Your task to perform on an android device: turn off location history Image 0: 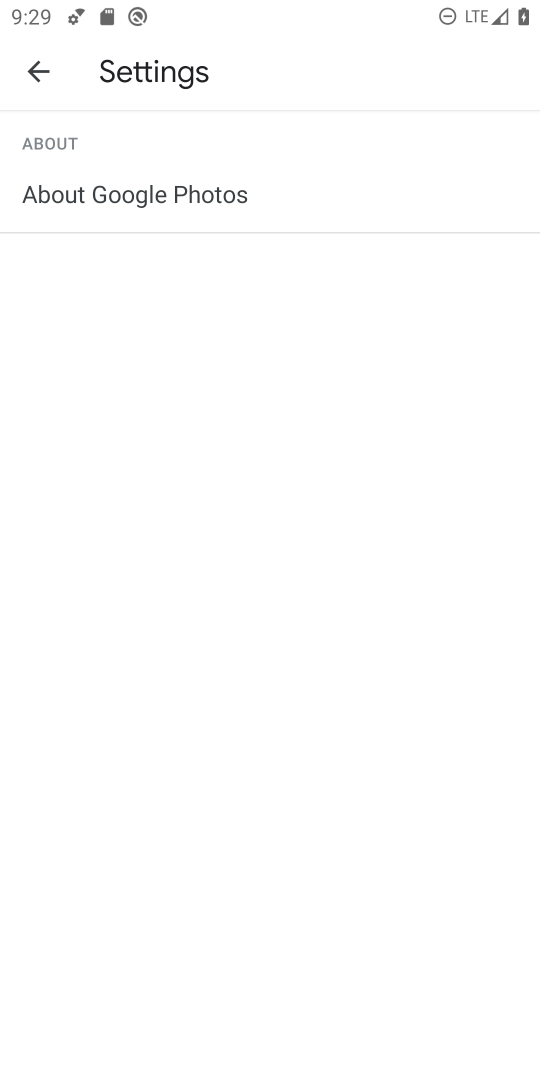
Step 0: press home button
Your task to perform on an android device: turn off location history Image 1: 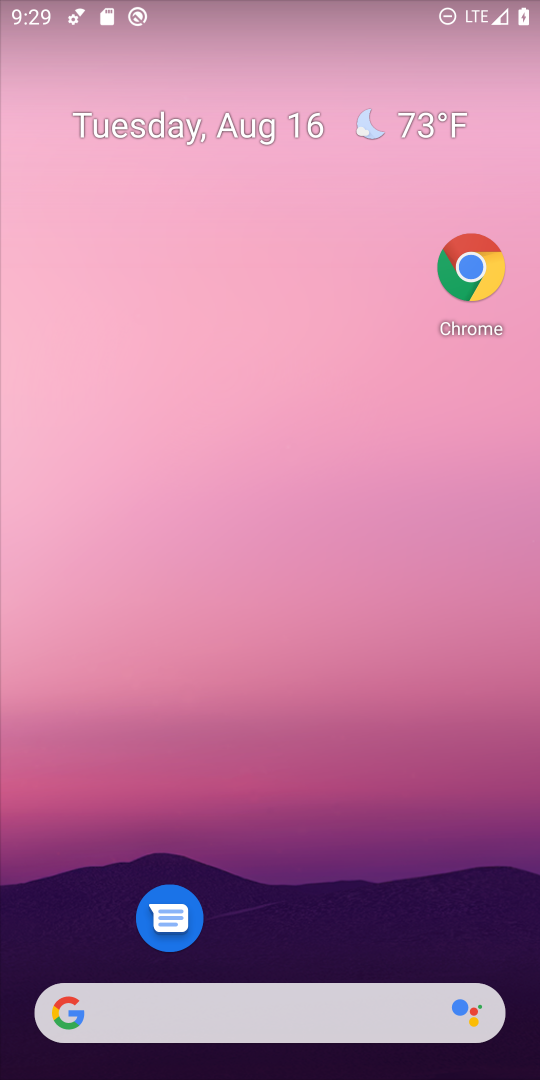
Step 1: drag from (328, 952) to (299, 347)
Your task to perform on an android device: turn off location history Image 2: 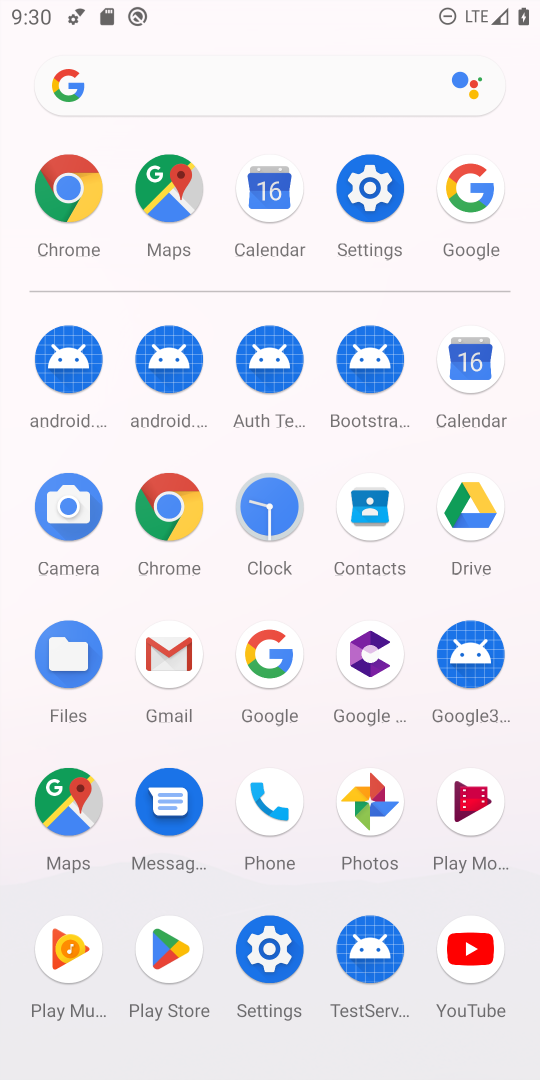
Step 2: click (374, 209)
Your task to perform on an android device: turn off location history Image 3: 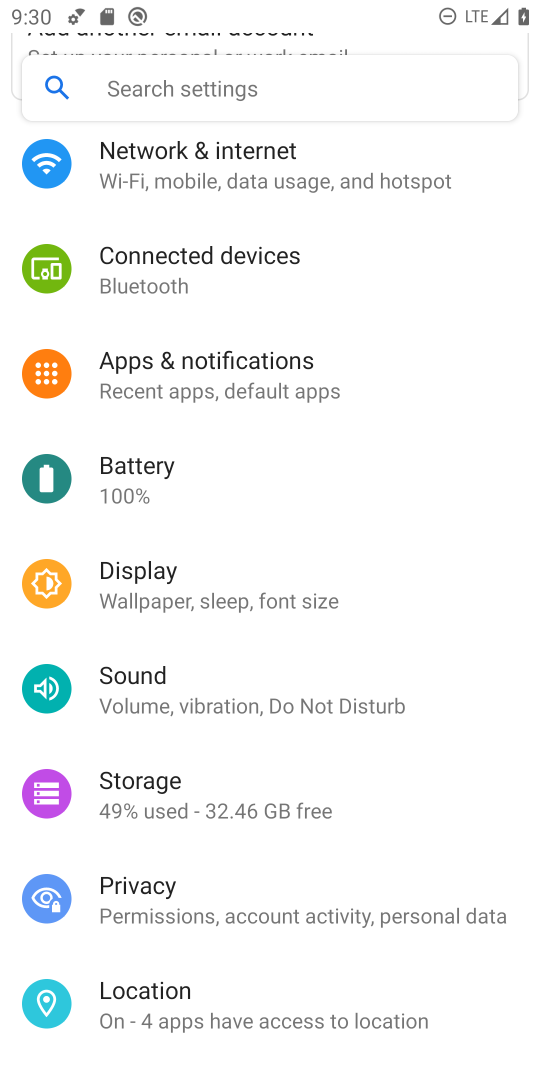
Step 3: click (191, 991)
Your task to perform on an android device: turn off location history Image 4: 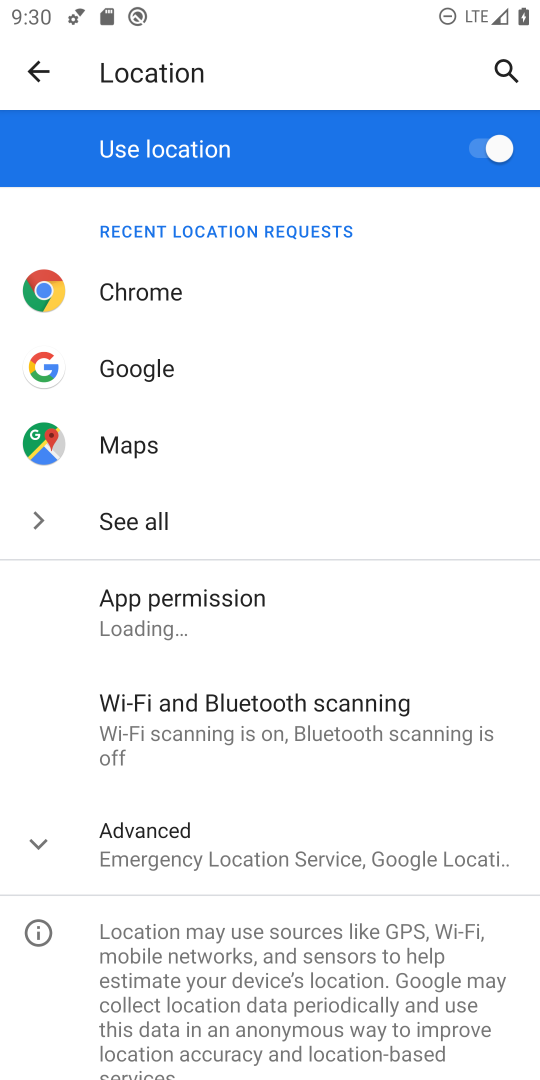
Step 4: click (202, 843)
Your task to perform on an android device: turn off location history Image 5: 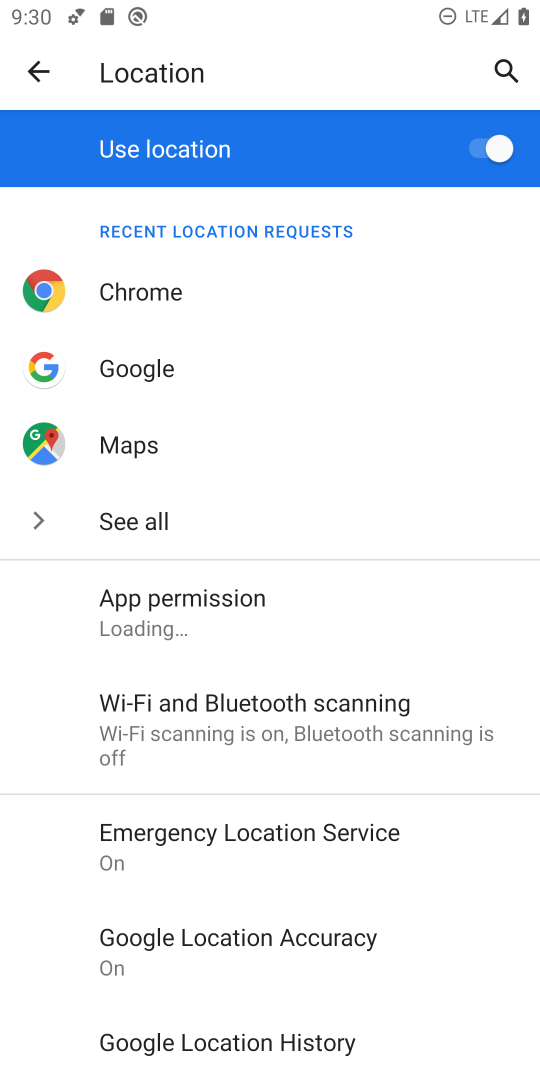
Step 5: drag from (251, 998) to (228, 481)
Your task to perform on an android device: turn off location history Image 6: 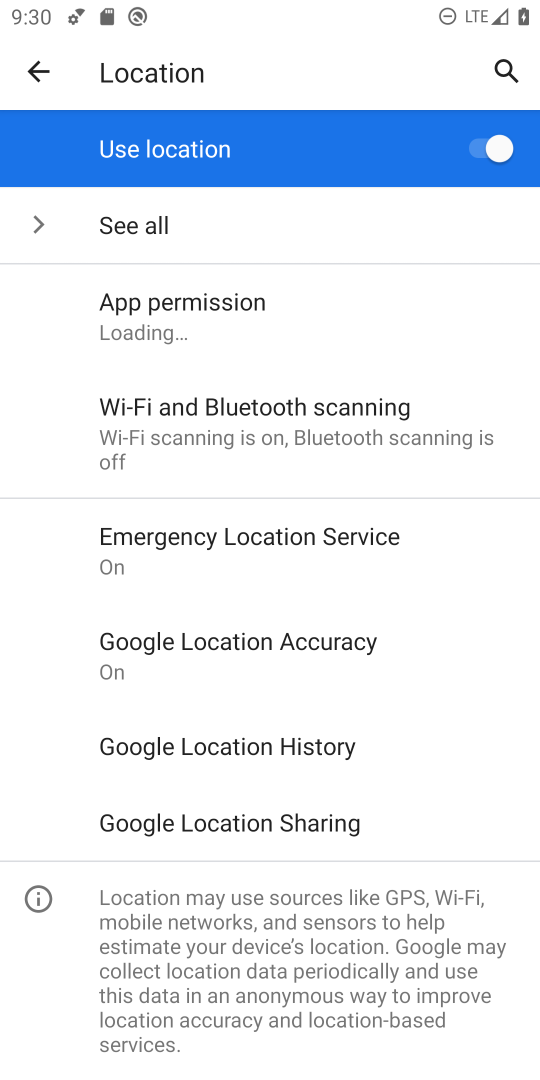
Step 6: click (229, 747)
Your task to perform on an android device: turn off location history Image 7: 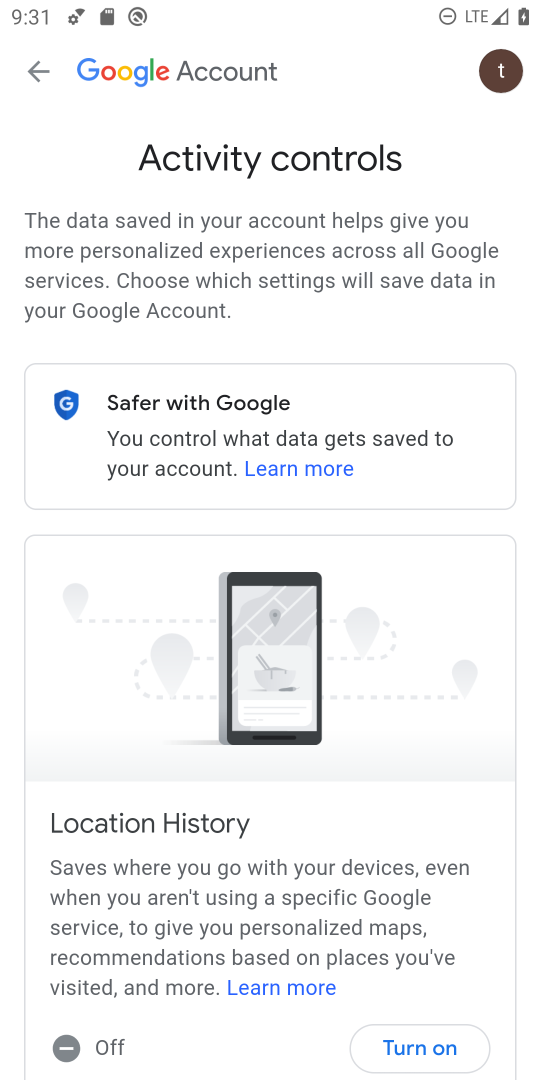
Step 7: task complete